Your task to perform on an android device: check android version Image 0: 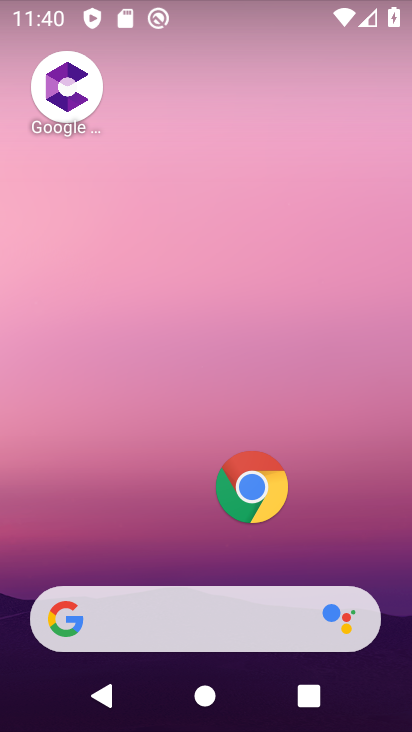
Step 0: drag from (204, 673) to (200, 86)
Your task to perform on an android device: check android version Image 1: 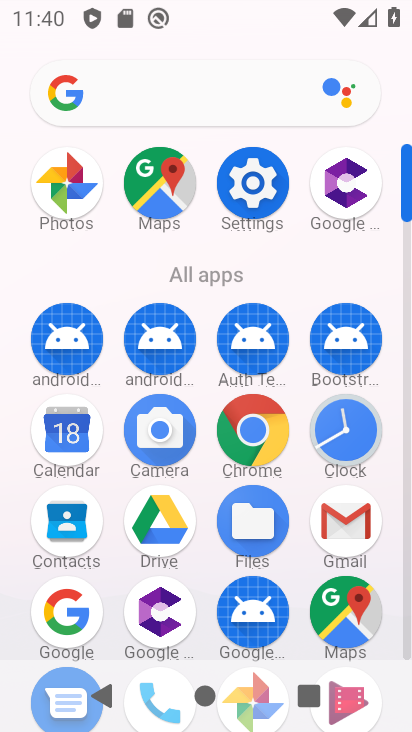
Step 1: click (251, 183)
Your task to perform on an android device: check android version Image 2: 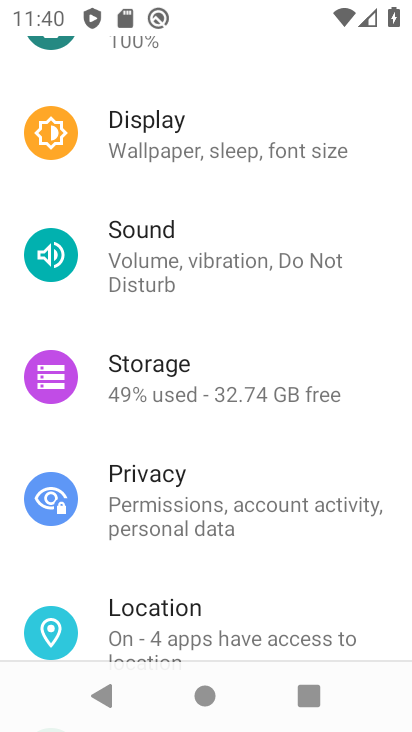
Step 2: drag from (227, 607) to (222, 122)
Your task to perform on an android device: check android version Image 3: 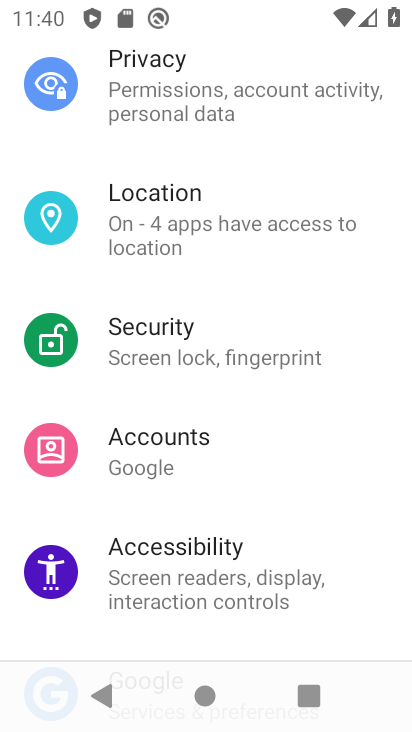
Step 3: drag from (212, 632) to (180, 71)
Your task to perform on an android device: check android version Image 4: 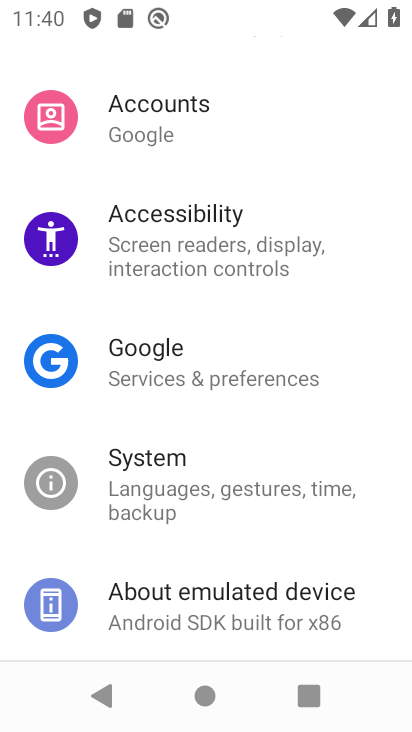
Step 4: drag from (212, 635) to (215, 134)
Your task to perform on an android device: check android version Image 5: 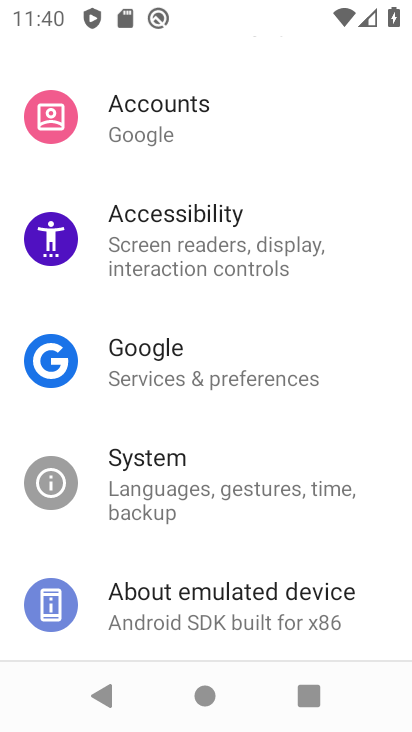
Step 5: click (195, 595)
Your task to perform on an android device: check android version Image 6: 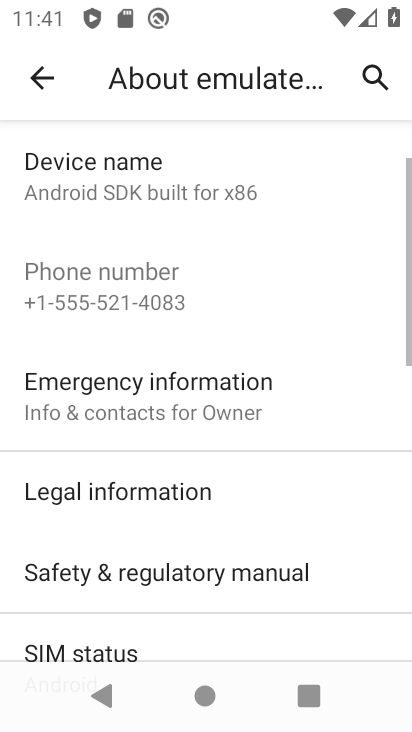
Step 6: drag from (141, 610) to (143, 172)
Your task to perform on an android device: check android version Image 7: 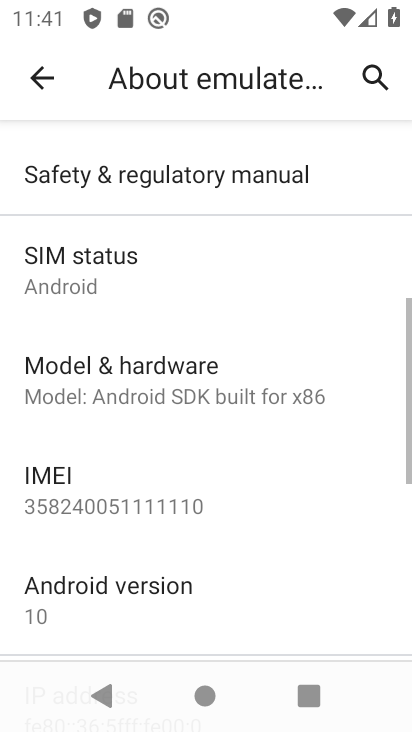
Step 7: click (144, 582)
Your task to perform on an android device: check android version Image 8: 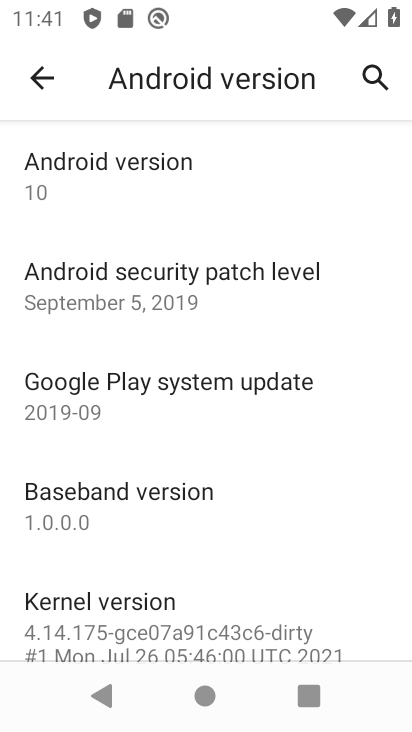
Step 8: task complete